Your task to perform on an android device: turn off airplane mode Image 0: 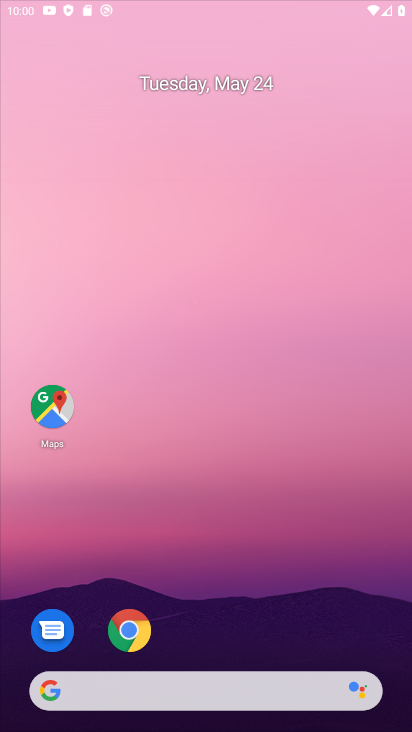
Step 0: press home button
Your task to perform on an android device: turn off airplane mode Image 1: 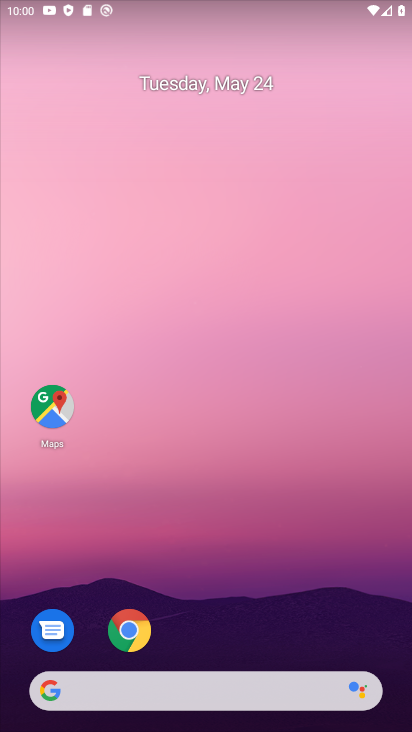
Step 1: task complete